Your task to perform on an android device: toggle translation in the chrome app Image 0: 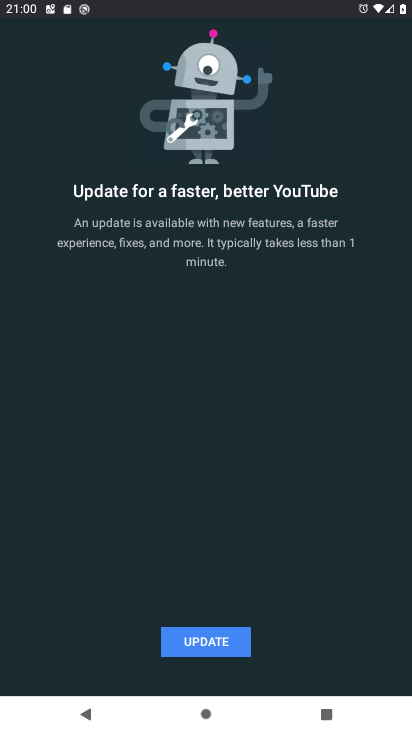
Step 0: press back button
Your task to perform on an android device: toggle translation in the chrome app Image 1: 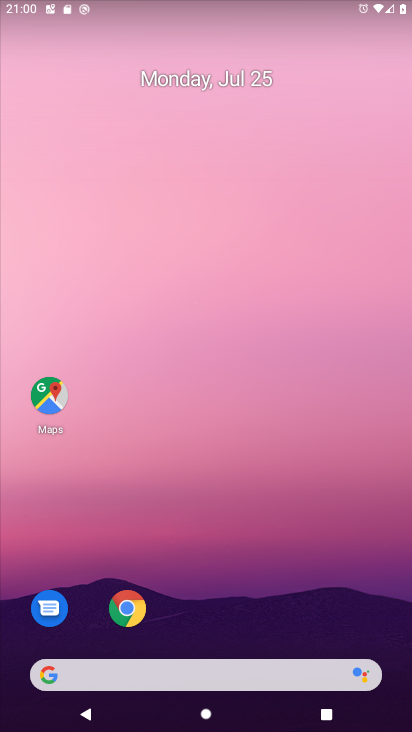
Step 1: click (134, 596)
Your task to perform on an android device: toggle translation in the chrome app Image 2: 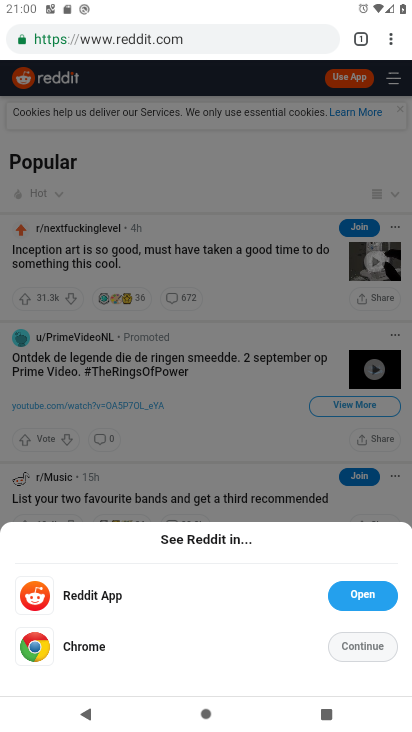
Step 2: click (389, 40)
Your task to perform on an android device: toggle translation in the chrome app Image 3: 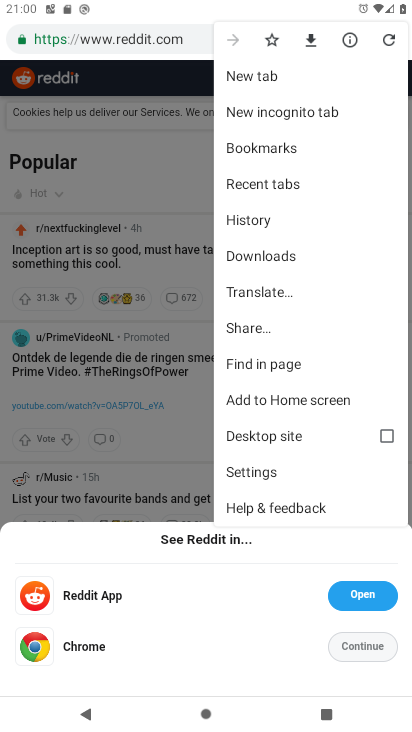
Step 3: click (281, 467)
Your task to perform on an android device: toggle translation in the chrome app Image 4: 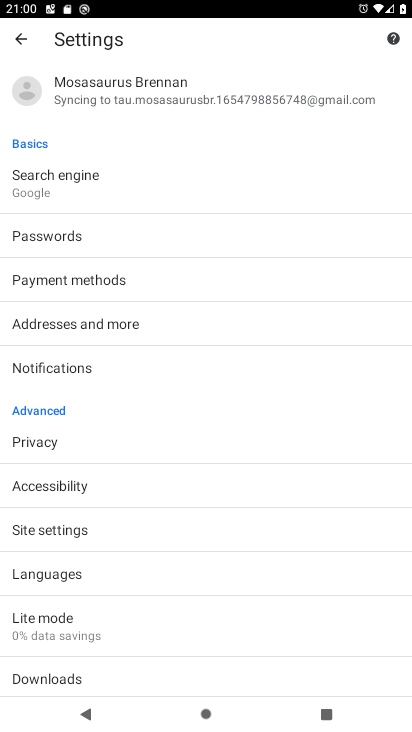
Step 4: click (77, 574)
Your task to perform on an android device: toggle translation in the chrome app Image 5: 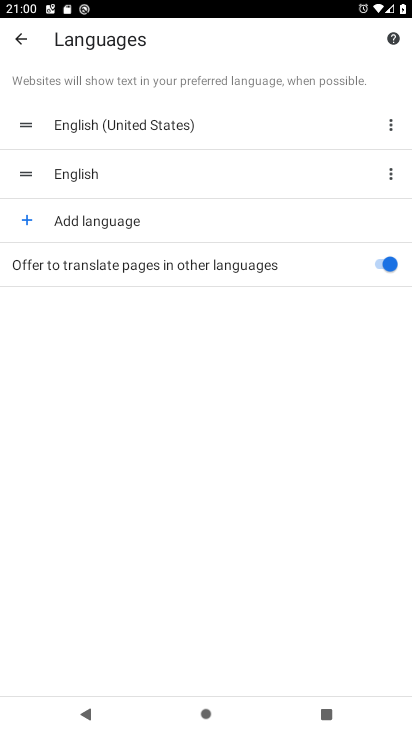
Step 5: click (378, 259)
Your task to perform on an android device: toggle translation in the chrome app Image 6: 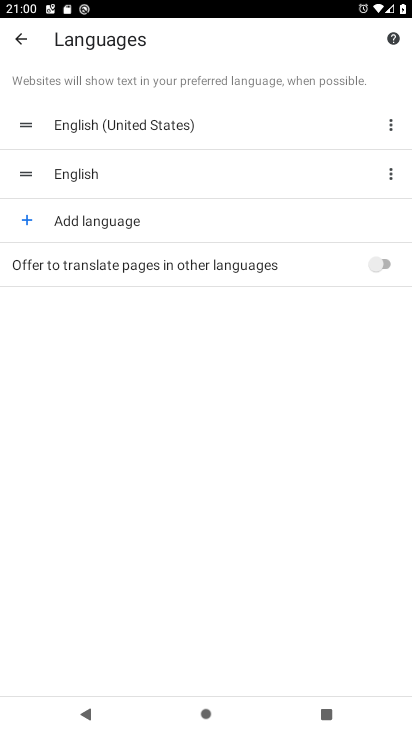
Step 6: task complete